Your task to perform on an android device: open chrome privacy settings Image 0: 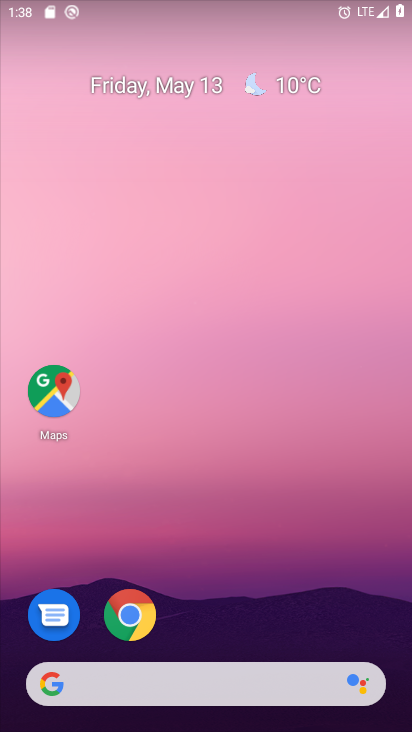
Step 0: click (144, 604)
Your task to perform on an android device: open chrome privacy settings Image 1: 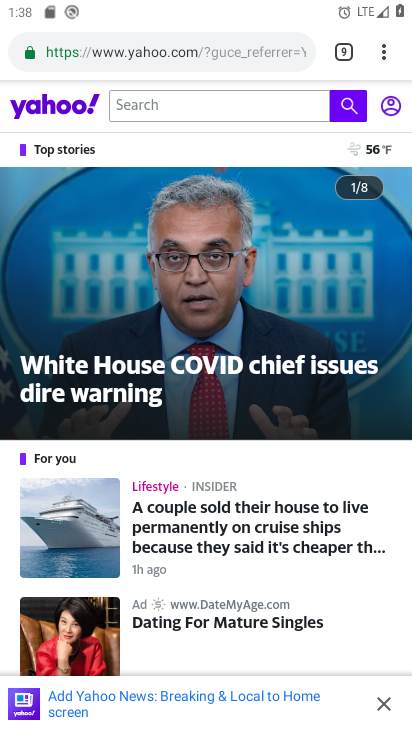
Step 1: click (379, 53)
Your task to perform on an android device: open chrome privacy settings Image 2: 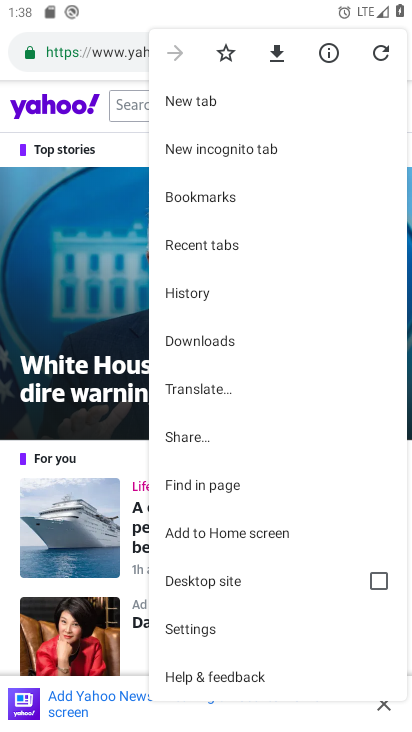
Step 2: click (221, 635)
Your task to perform on an android device: open chrome privacy settings Image 3: 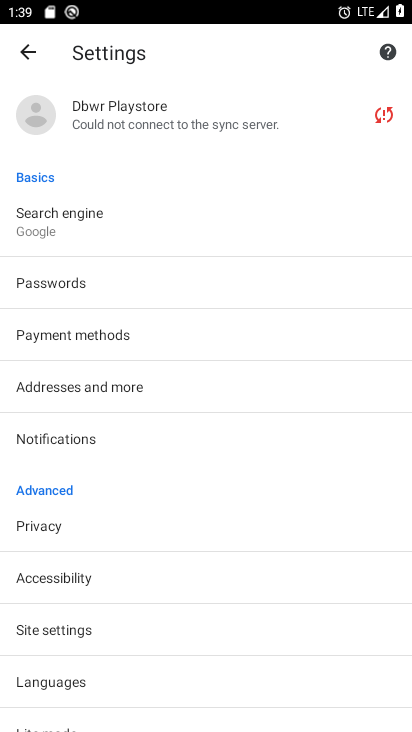
Step 3: click (176, 518)
Your task to perform on an android device: open chrome privacy settings Image 4: 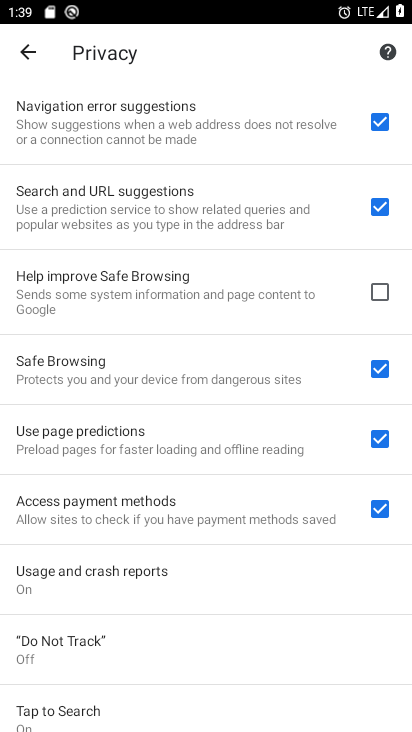
Step 4: task complete